Your task to perform on an android device: Go to eBay Image 0: 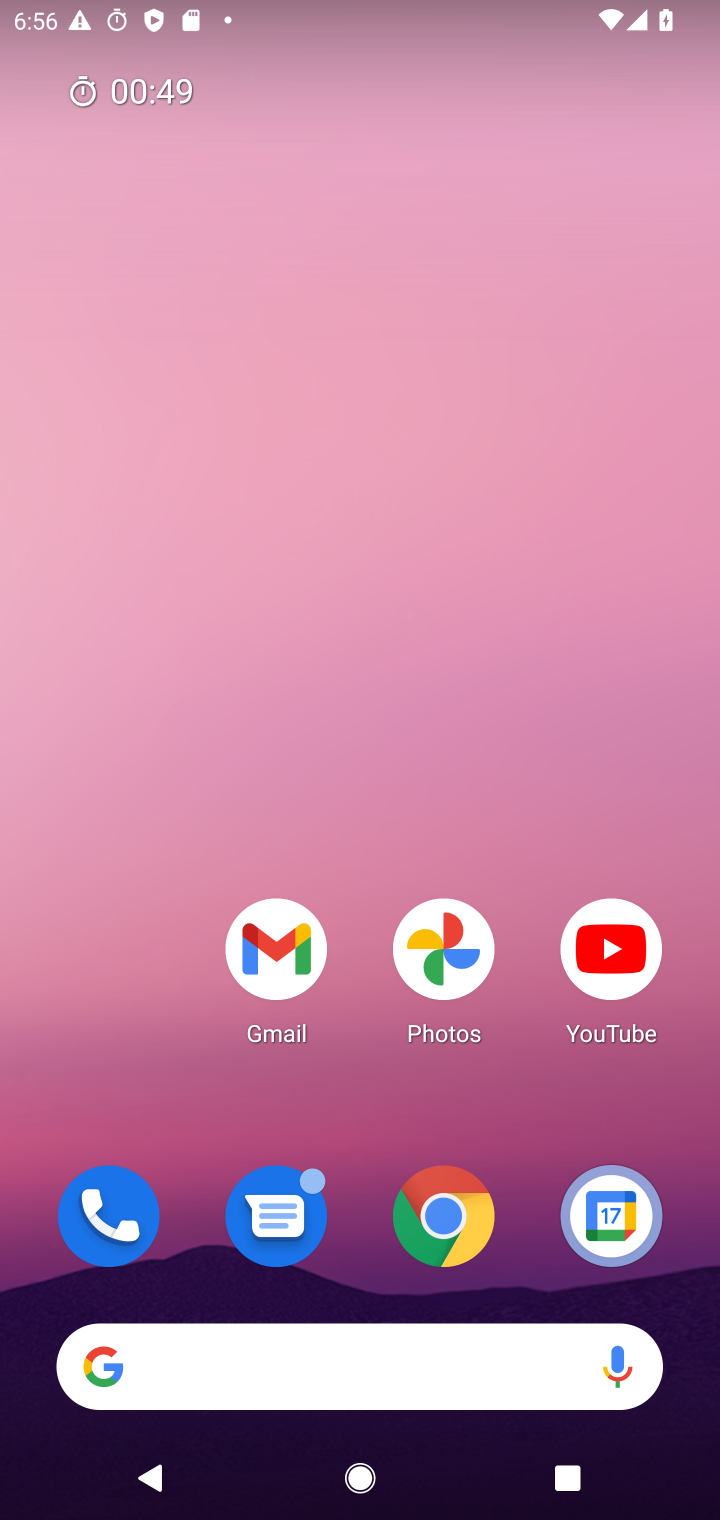
Step 0: press home button
Your task to perform on an android device: Go to eBay Image 1: 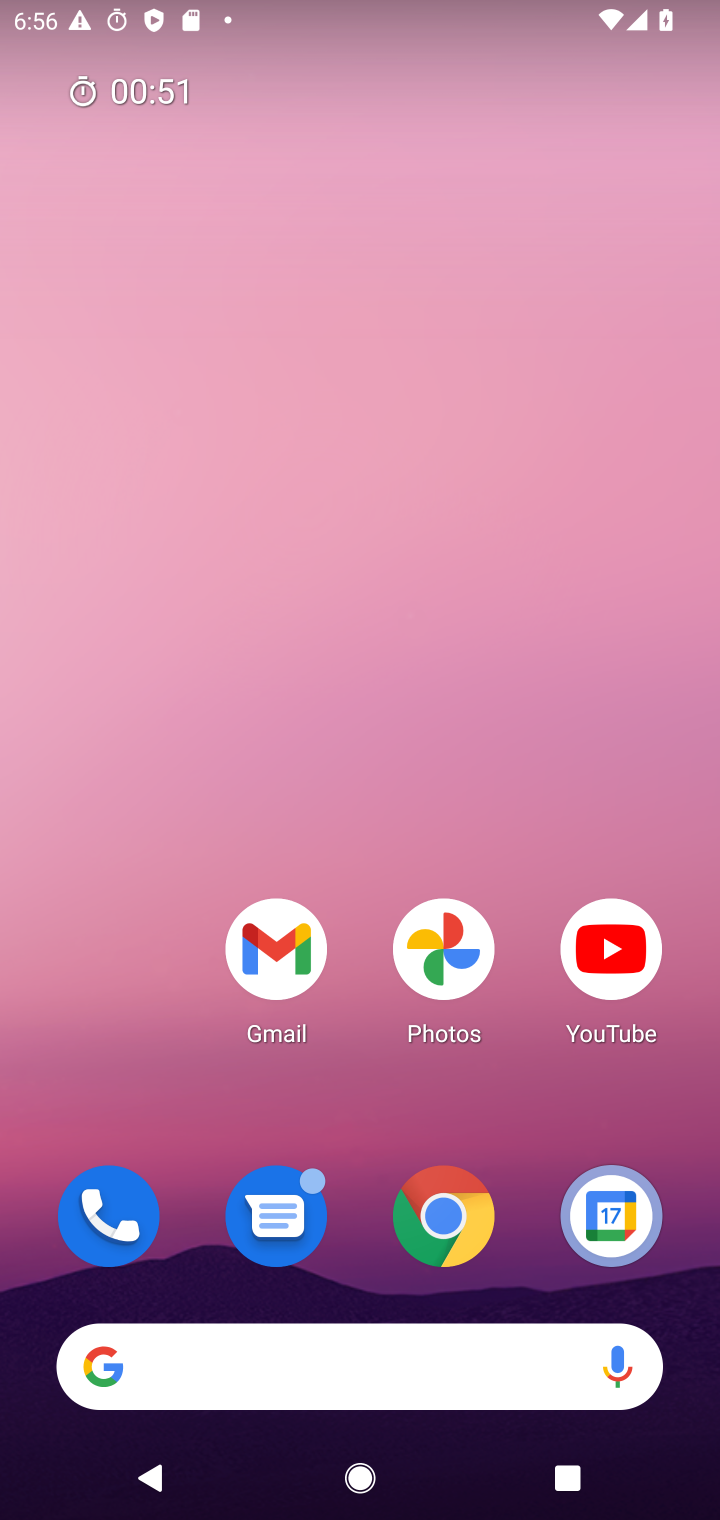
Step 1: drag from (538, 1000) to (586, 26)
Your task to perform on an android device: Go to eBay Image 2: 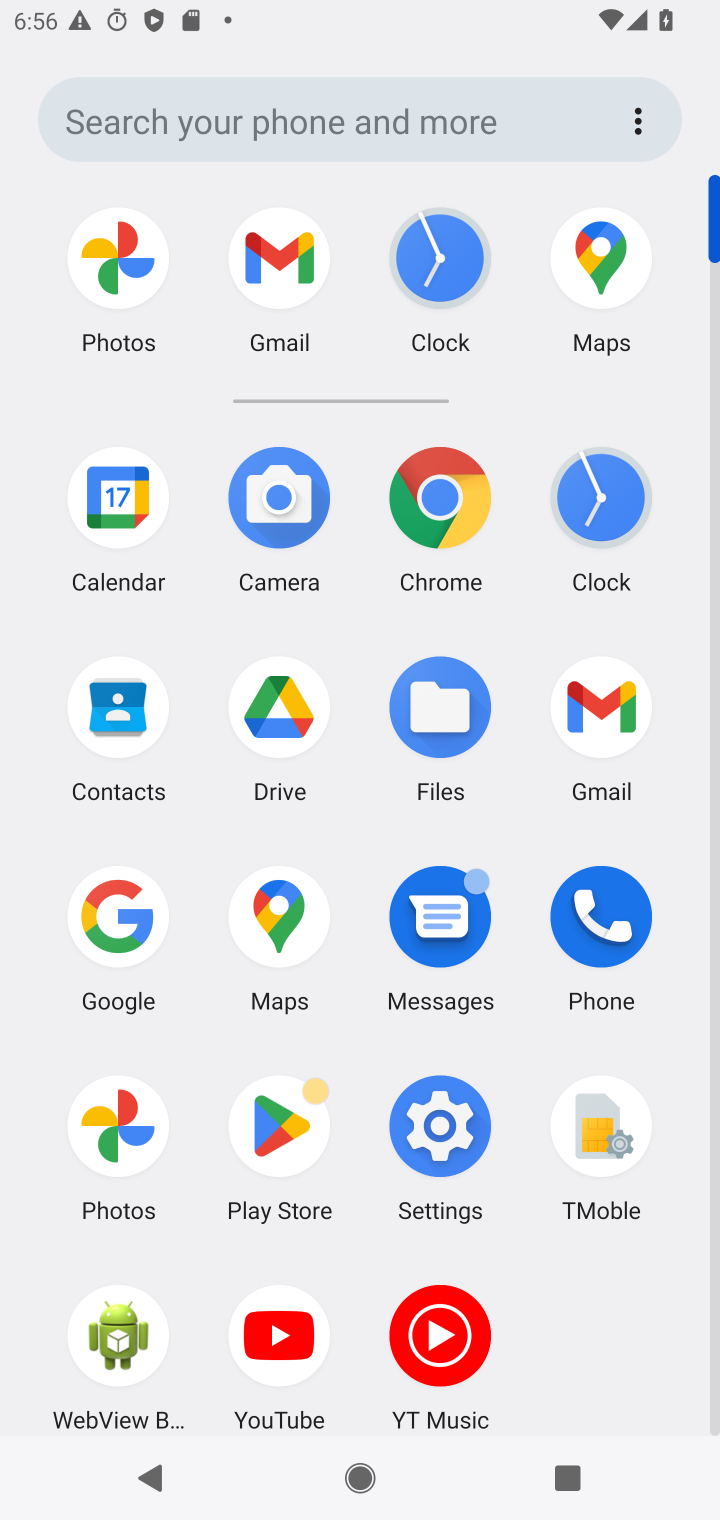
Step 2: click (432, 462)
Your task to perform on an android device: Go to eBay Image 3: 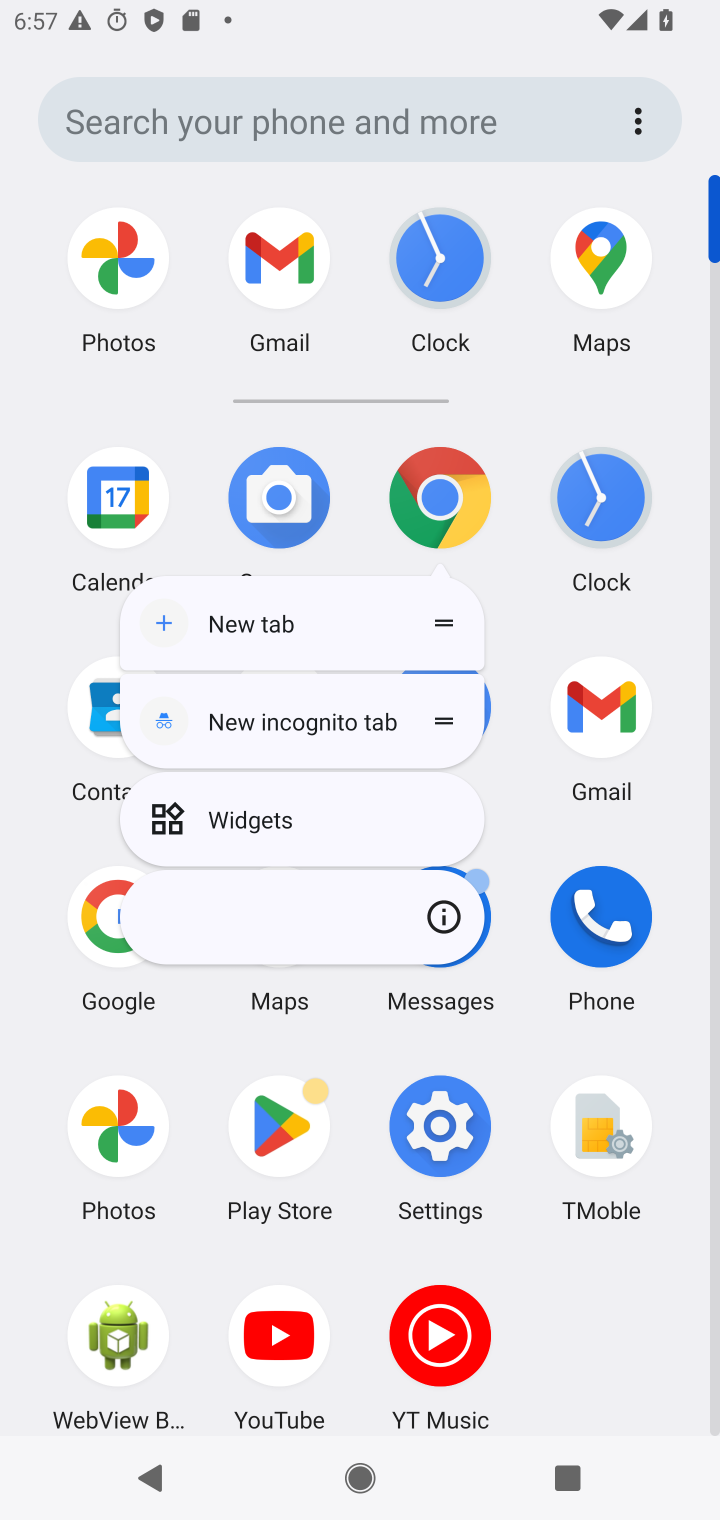
Step 3: click (442, 495)
Your task to perform on an android device: Go to eBay Image 4: 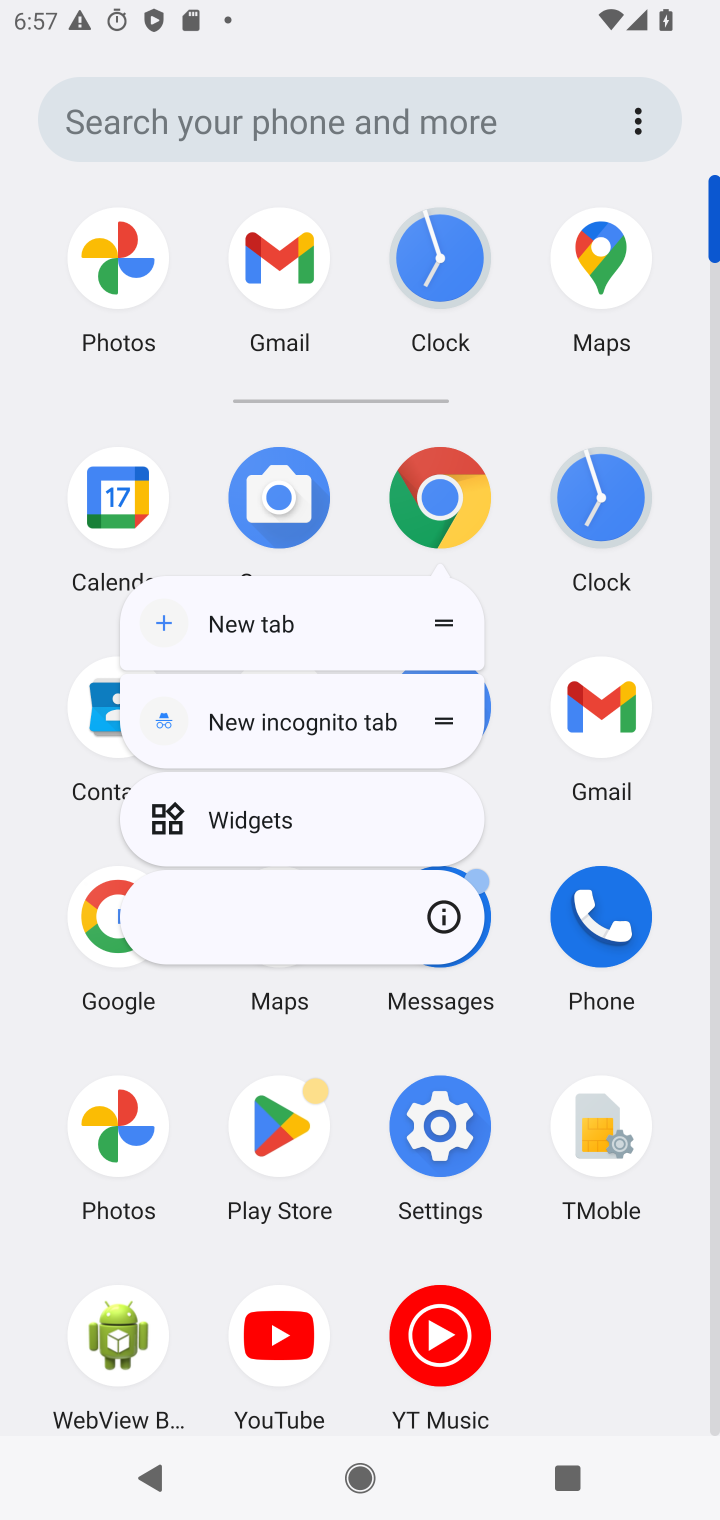
Step 4: click (430, 497)
Your task to perform on an android device: Go to eBay Image 5: 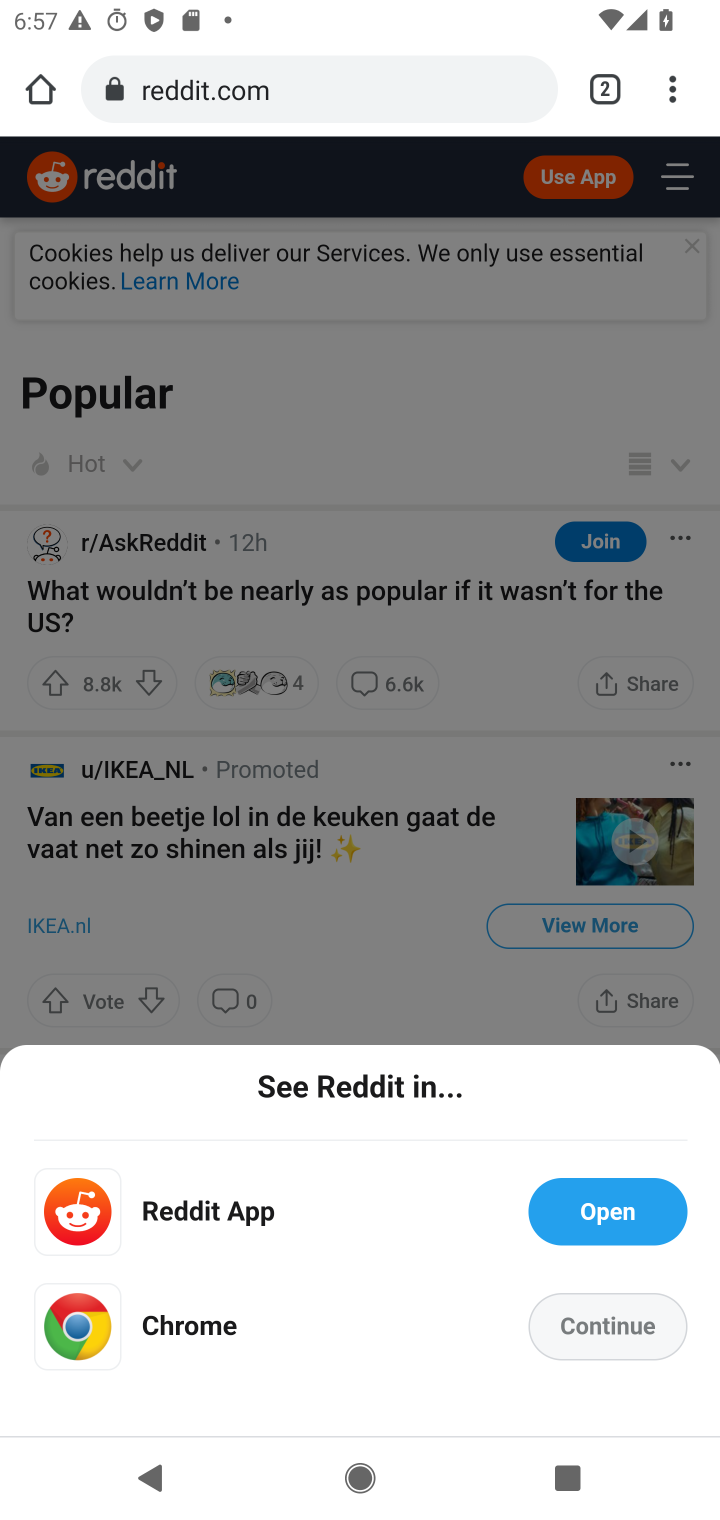
Step 5: click (333, 92)
Your task to perform on an android device: Go to eBay Image 6: 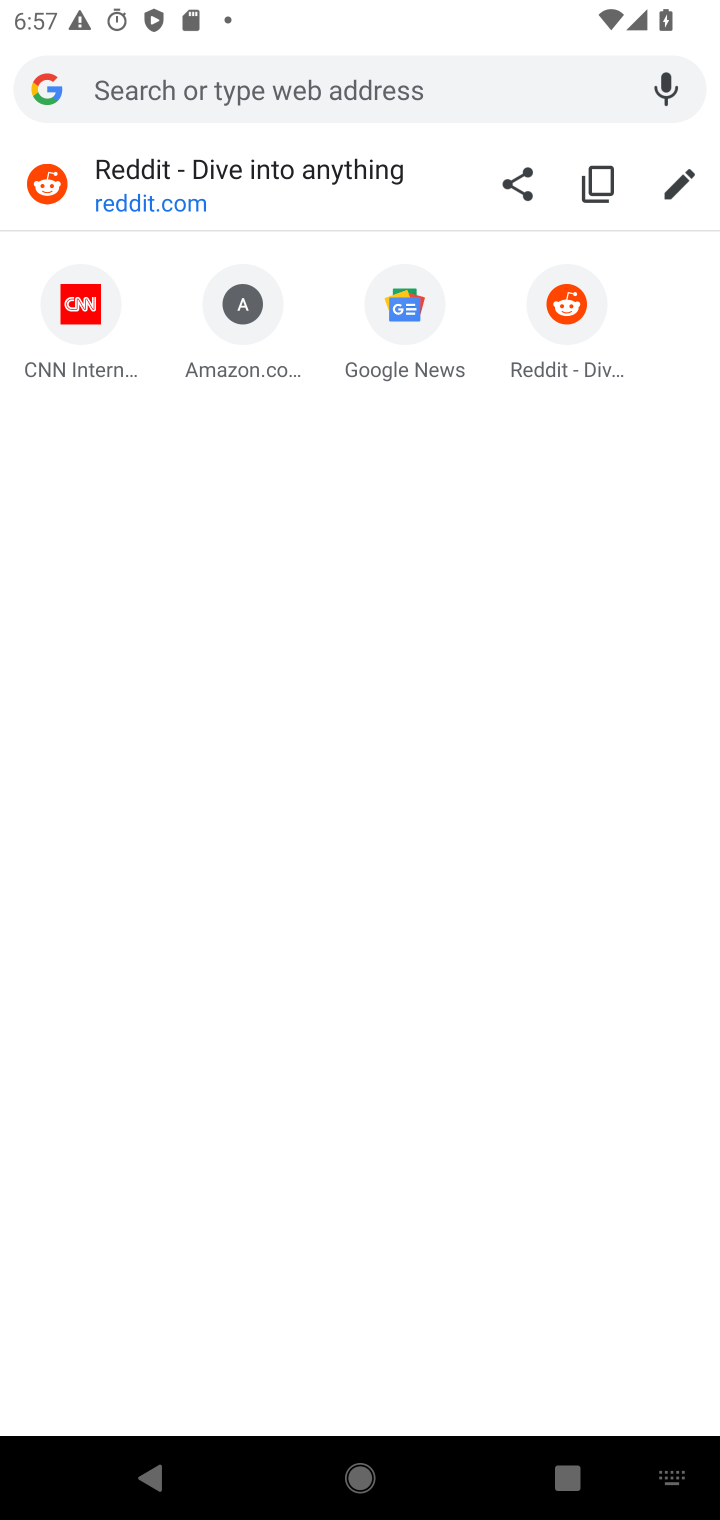
Step 6: type " eBay"
Your task to perform on an android device: Go to eBay Image 7: 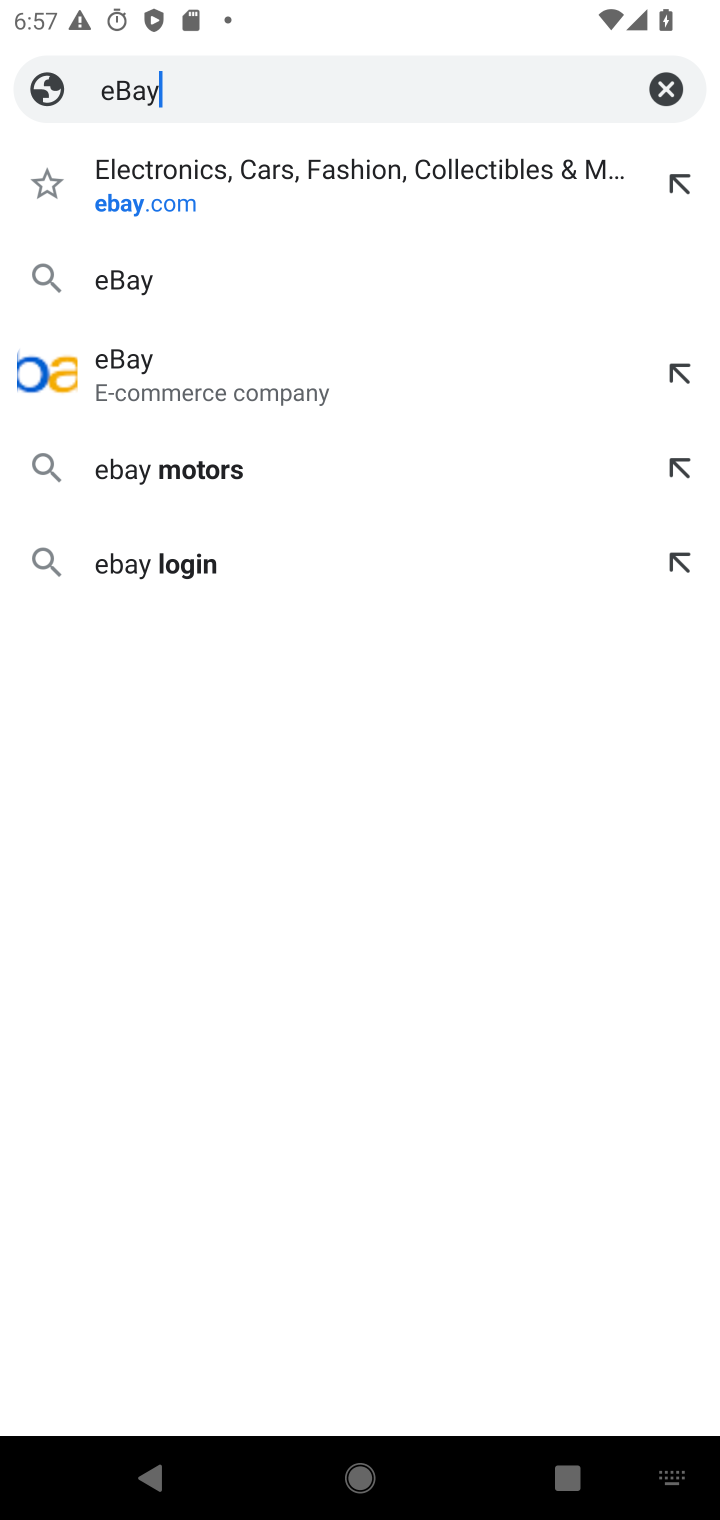
Step 7: click (150, 201)
Your task to perform on an android device: Go to eBay Image 8: 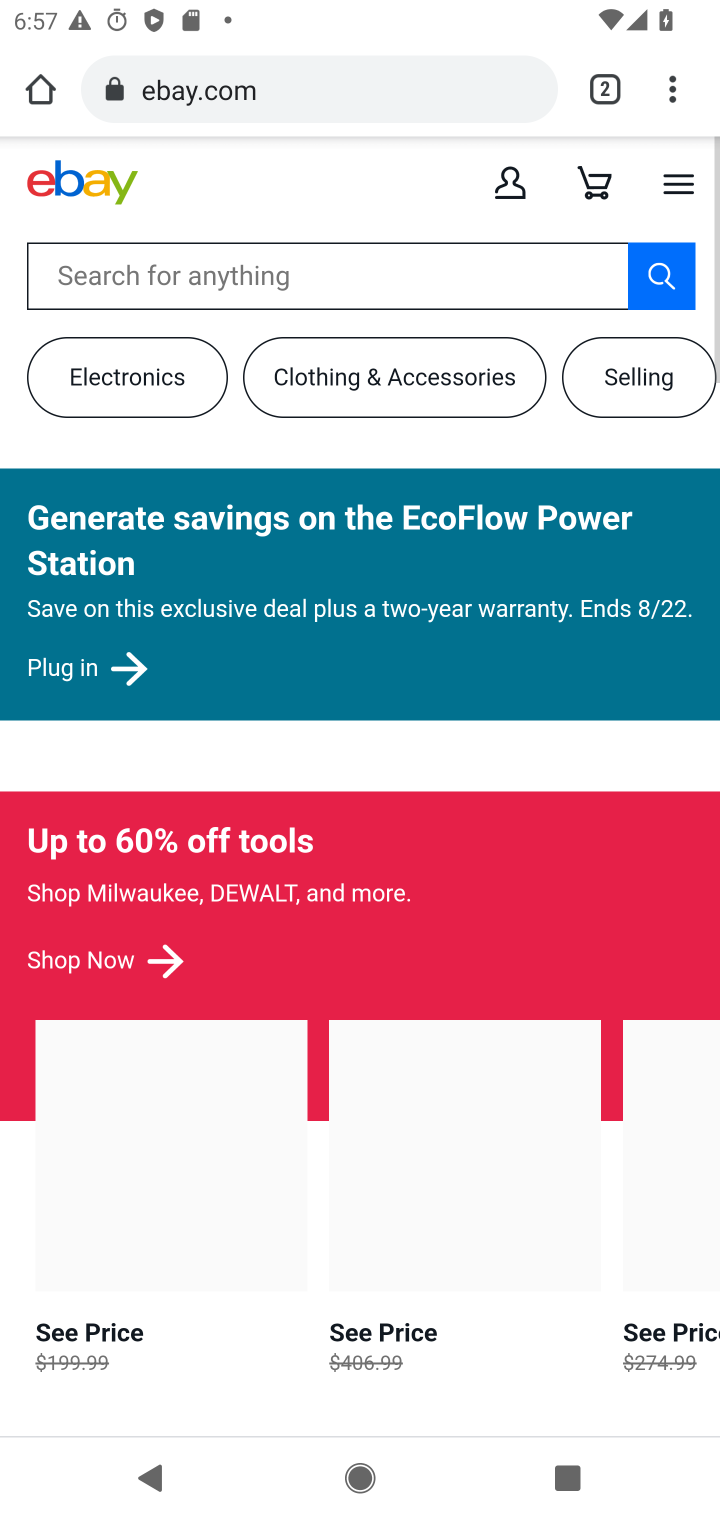
Step 8: task complete